Your task to perform on an android device: open app "Reddit" Image 0: 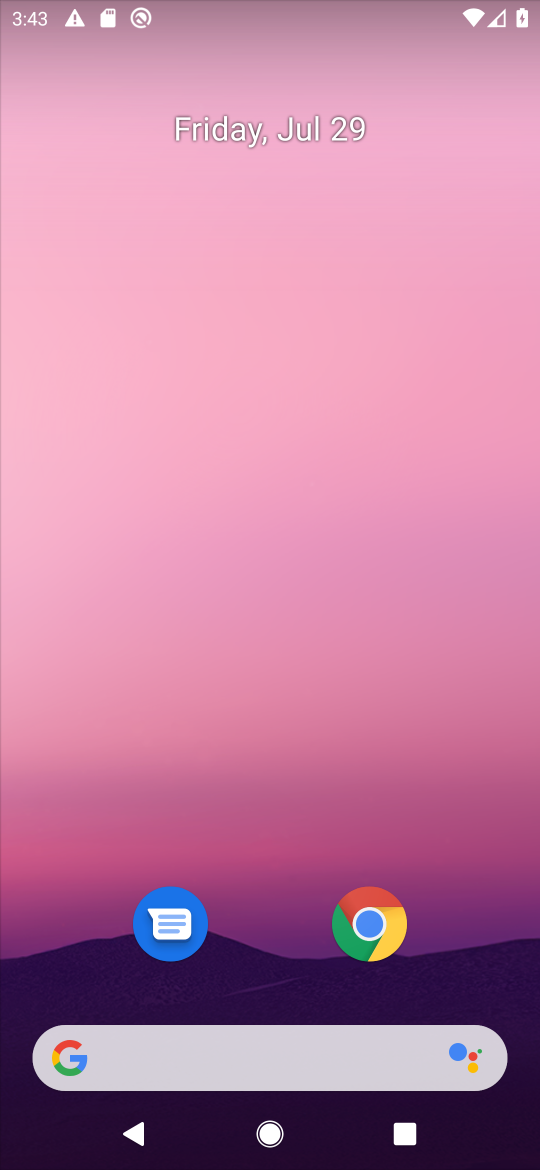
Step 0: drag from (338, 897) to (234, 127)
Your task to perform on an android device: open app "Reddit" Image 1: 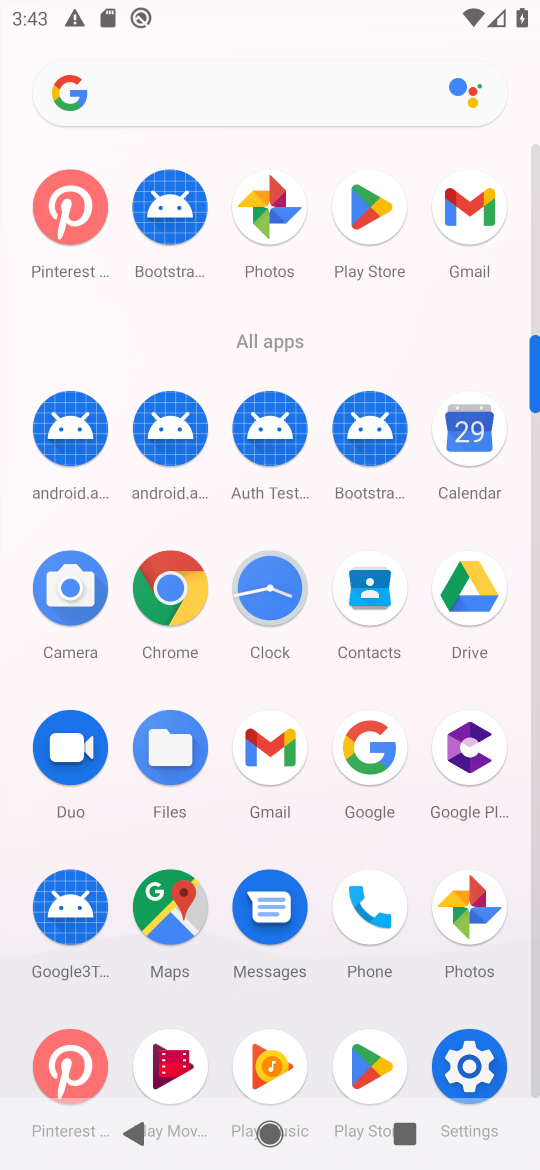
Step 1: drag from (376, 910) to (286, 307)
Your task to perform on an android device: open app "Reddit" Image 2: 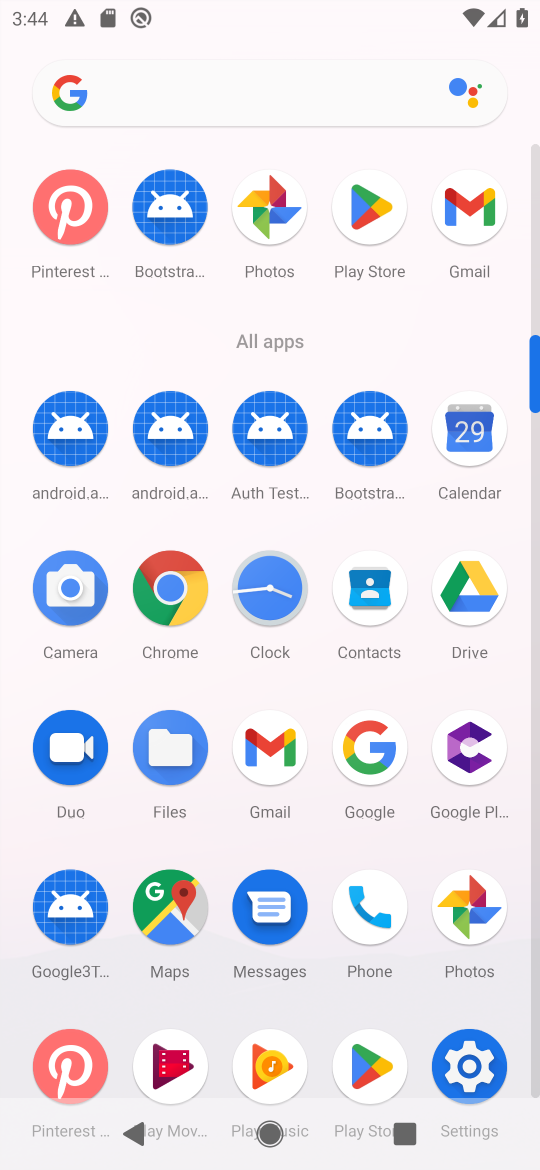
Step 2: click (360, 217)
Your task to perform on an android device: open app "Reddit" Image 3: 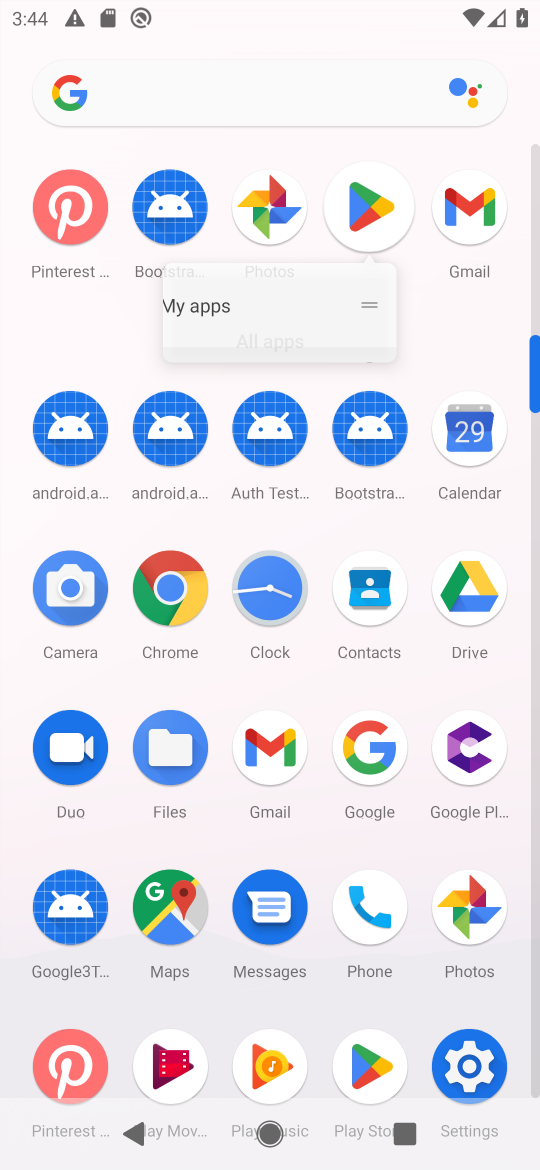
Step 3: click (360, 217)
Your task to perform on an android device: open app "Reddit" Image 4: 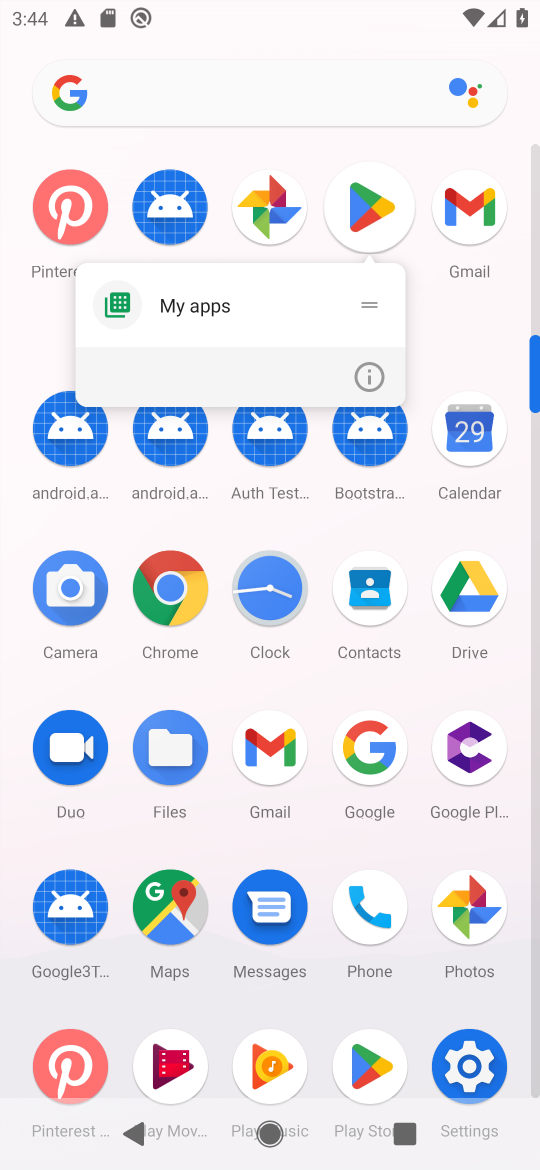
Step 4: click (381, 201)
Your task to perform on an android device: open app "Reddit" Image 5: 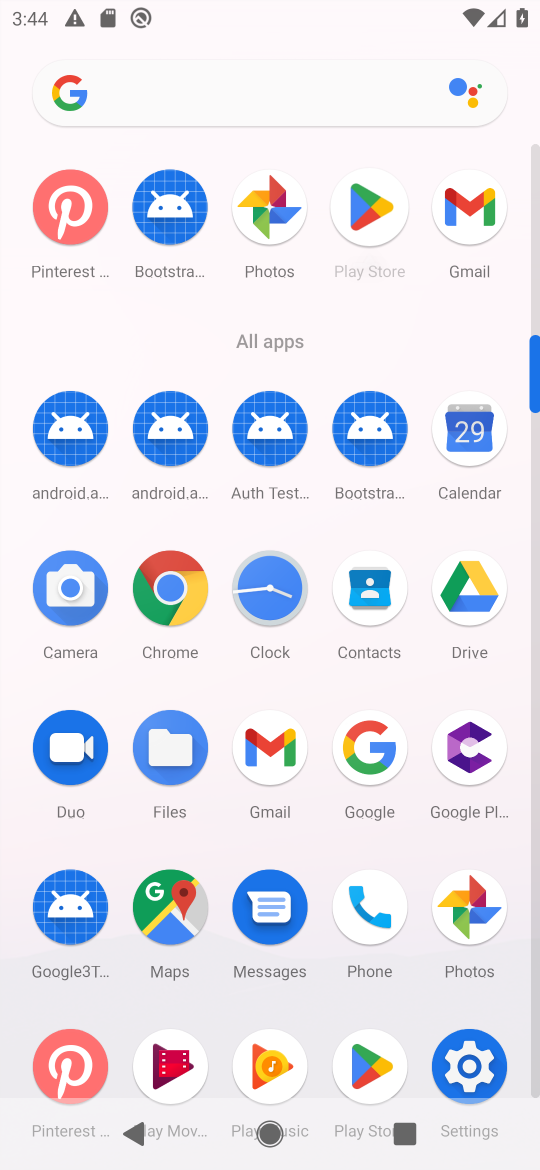
Step 5: click (395, 202)
Your task to perform on an android device: open app "Reddit" Image 6: 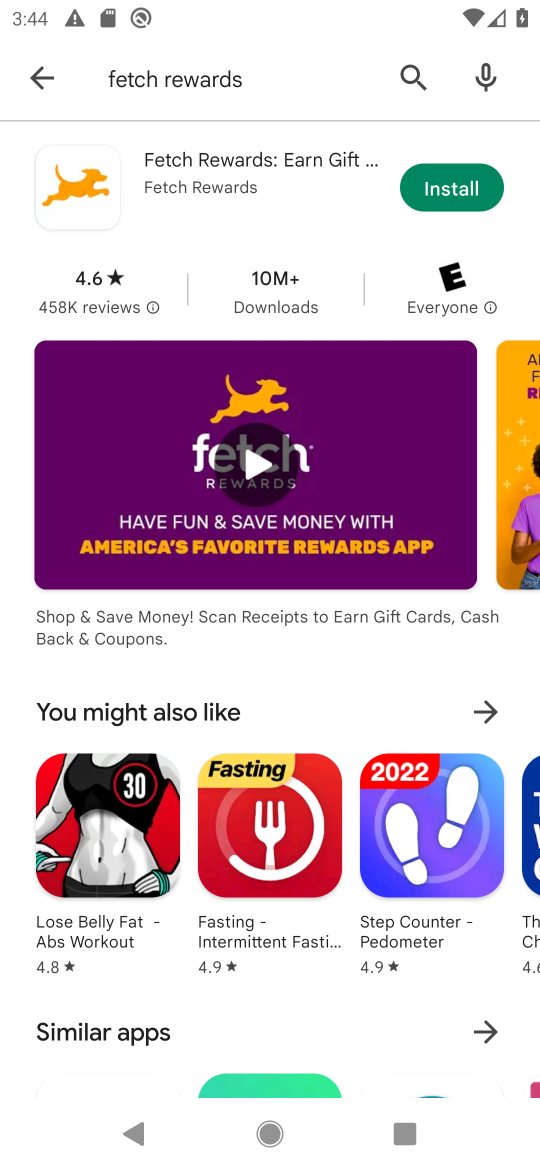
Step 6: click (1, 64)
Your task to perform on an android device: open app "Reddit" Image 7: 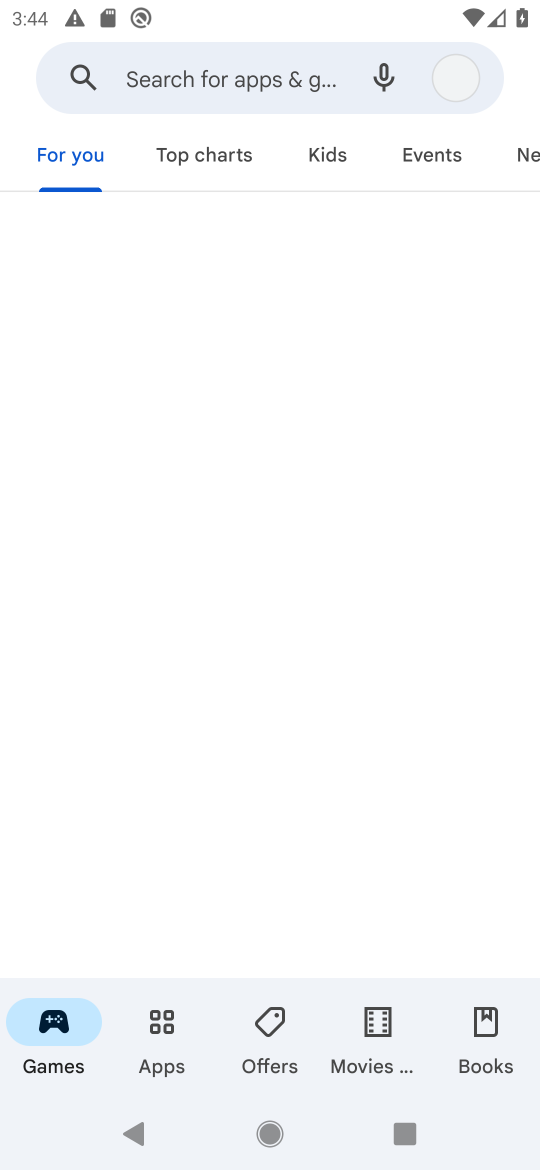
Step 7: click (31, 64)
Your task to perform on an android device: open app "Reddit" Image 8: 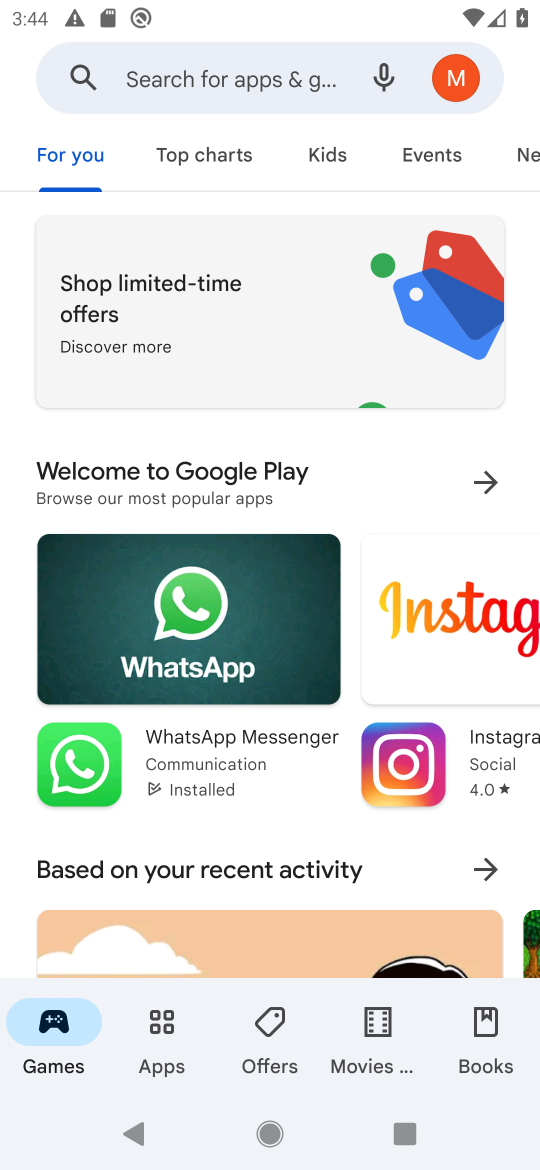
Step 8: click (142, 63)
Your task to perform on an android device: open app "Reddit" Image 9: 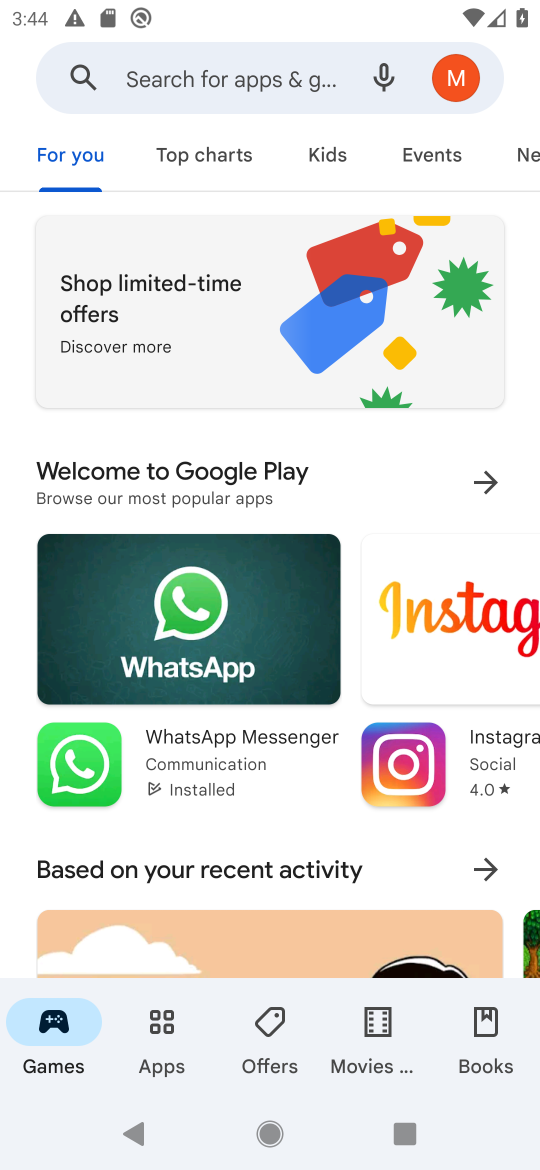
Step 9: click (167, 80)
Your task to perform on an android device: open app "Reddit" Image 10: 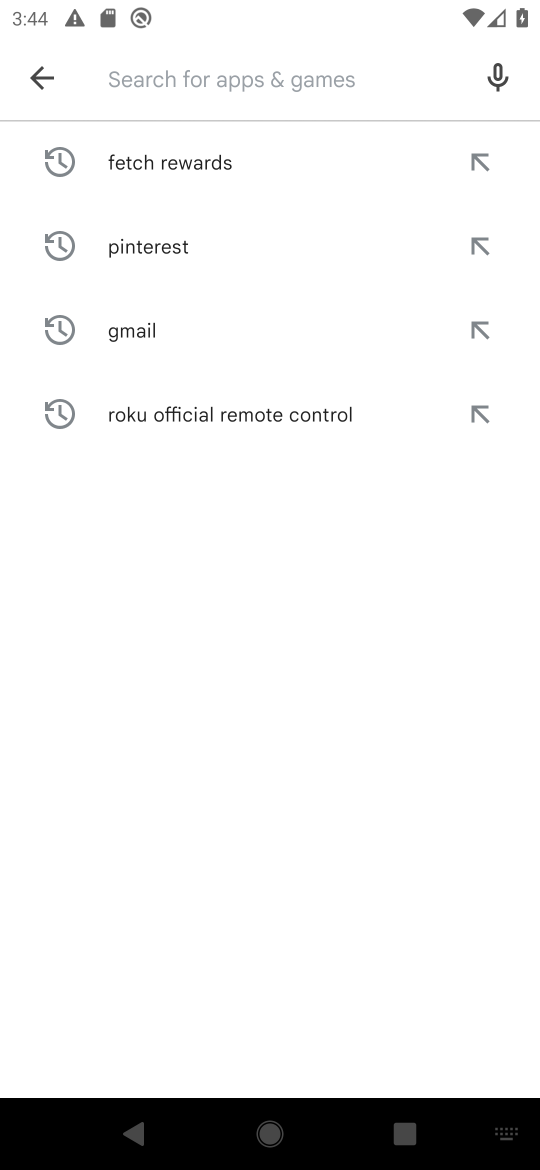
Step 10: click (190, 83)
Your task to perform on an android device: open app "Reddit" Image 11: 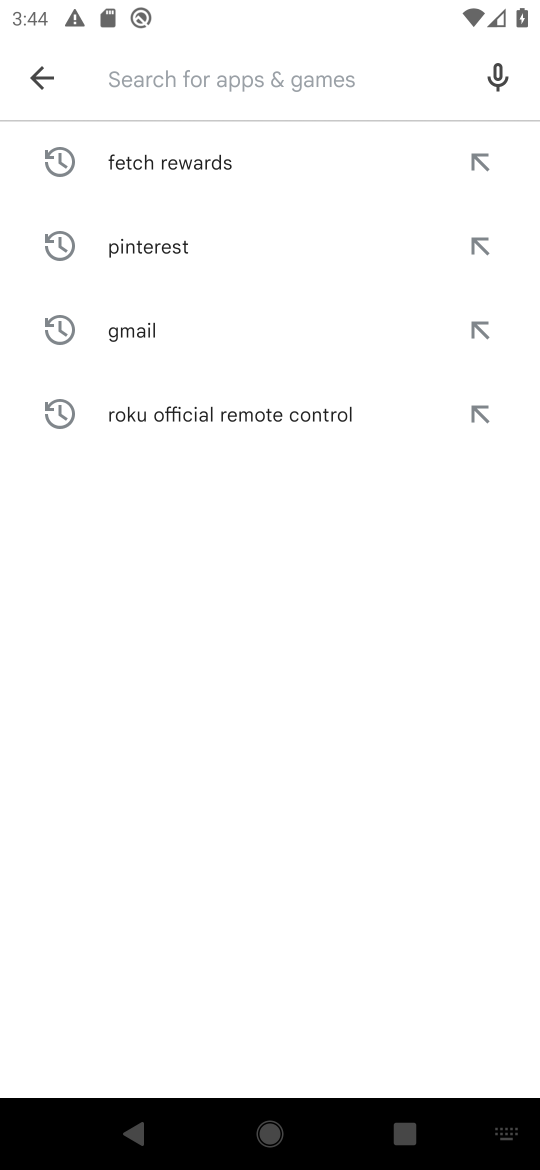
Step 11: type "Reddit"
Your task to perform on an android device: open app "Reddit" Image 12: 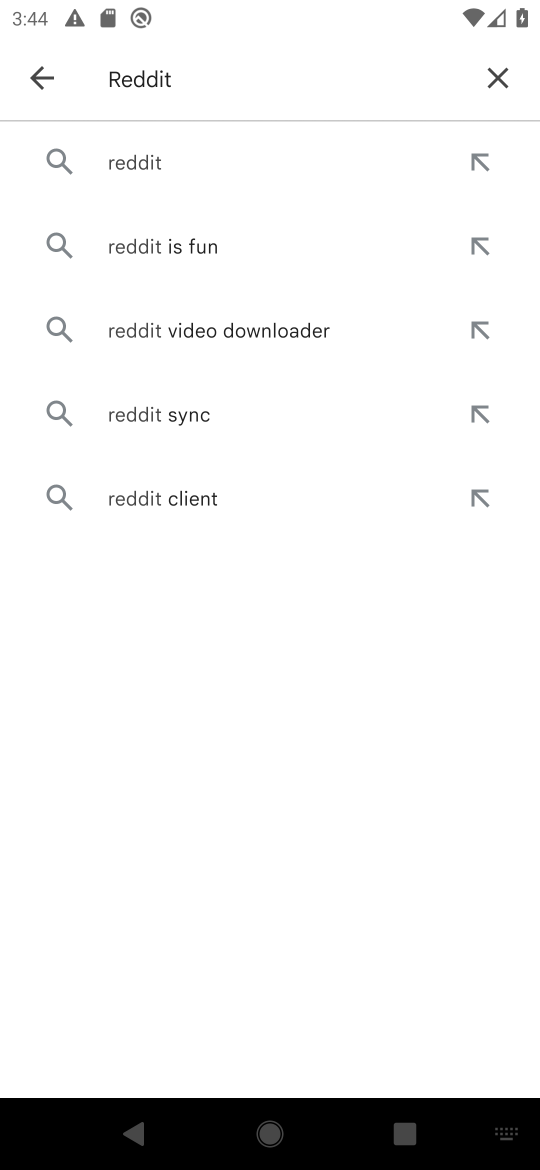
Step 12: click (158, 169)
Your task to perform on an android device: open app "Reddit" Image 13: 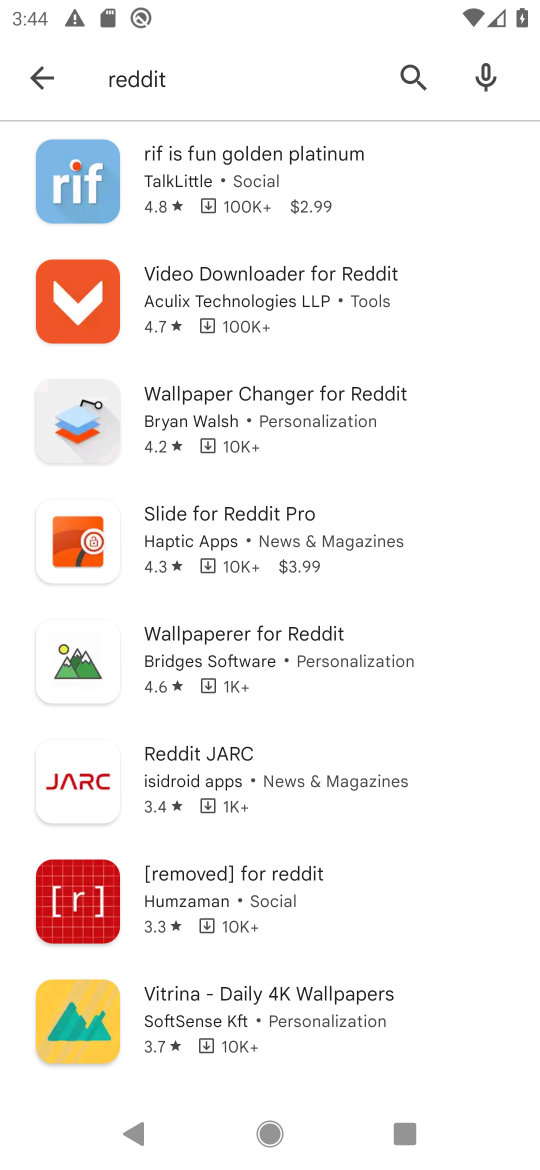
Step 13: drag from (255, 729) to (196, 280)
Your task to perform on an android device: open app "Reddit" Image 14: 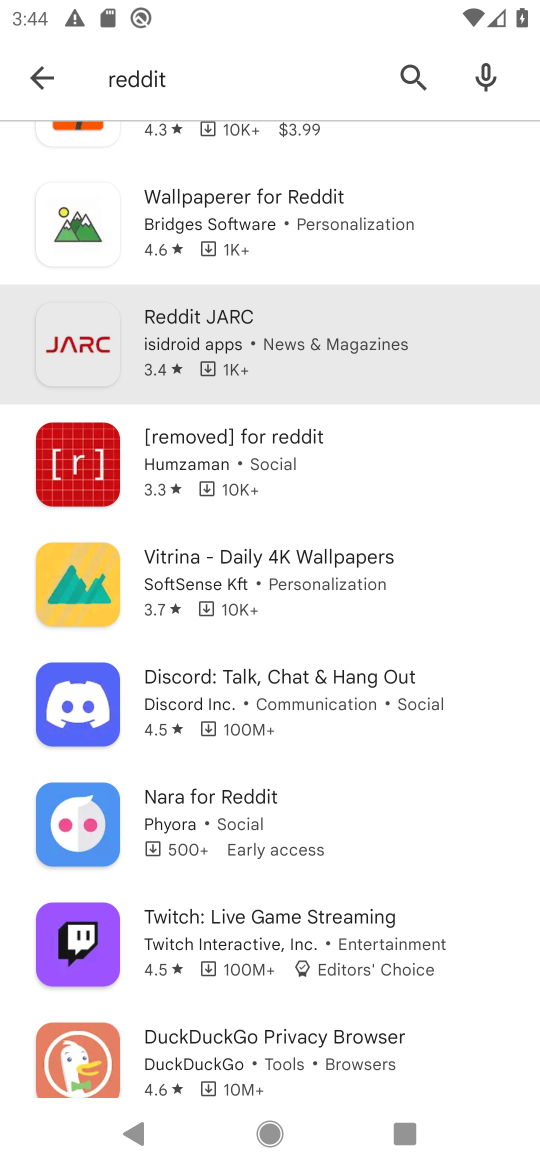
Step 14: click (212, 289)
Your task to perform on an android device: open app "Reddit" Image 15: 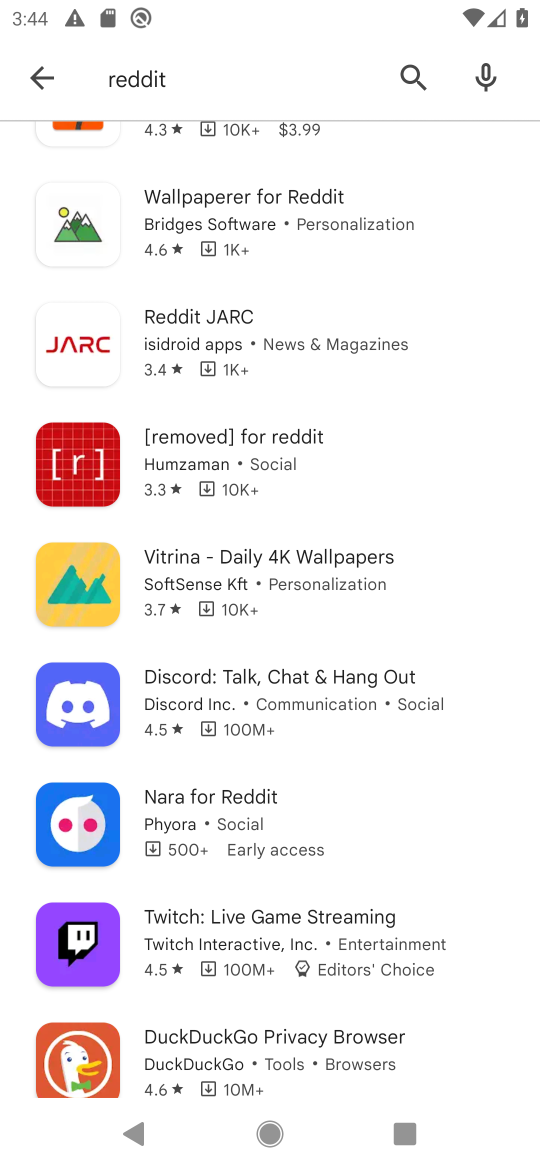
Step 15: drag from (193, 755) to (189, 416)
Your task to perform on an android device: open app "Reddit" Image 16: 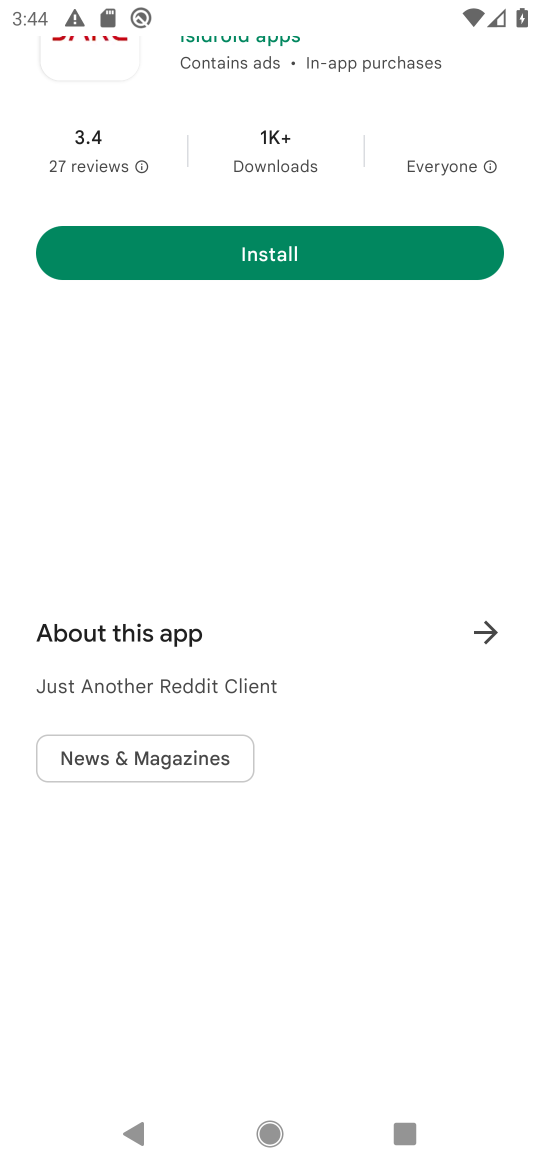
Step 16: drag from (211, 847) to (219, 985)
Your task to perform on an android device: open app "Reddit" Image 17: 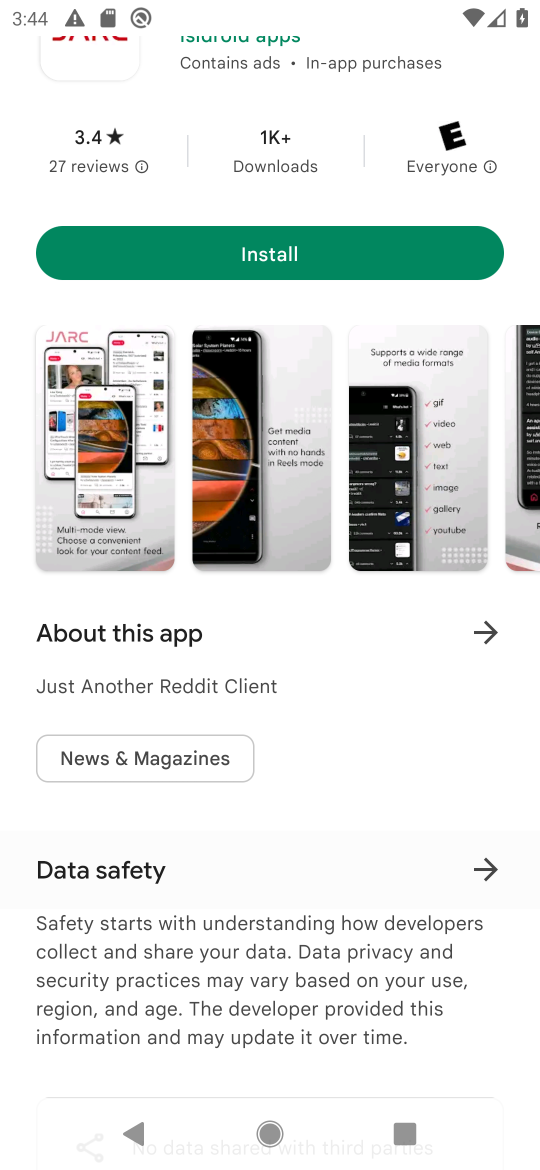
Step 17: click (256, 561)
Your task to perform on an android device: open app "Reddit" Image 18: 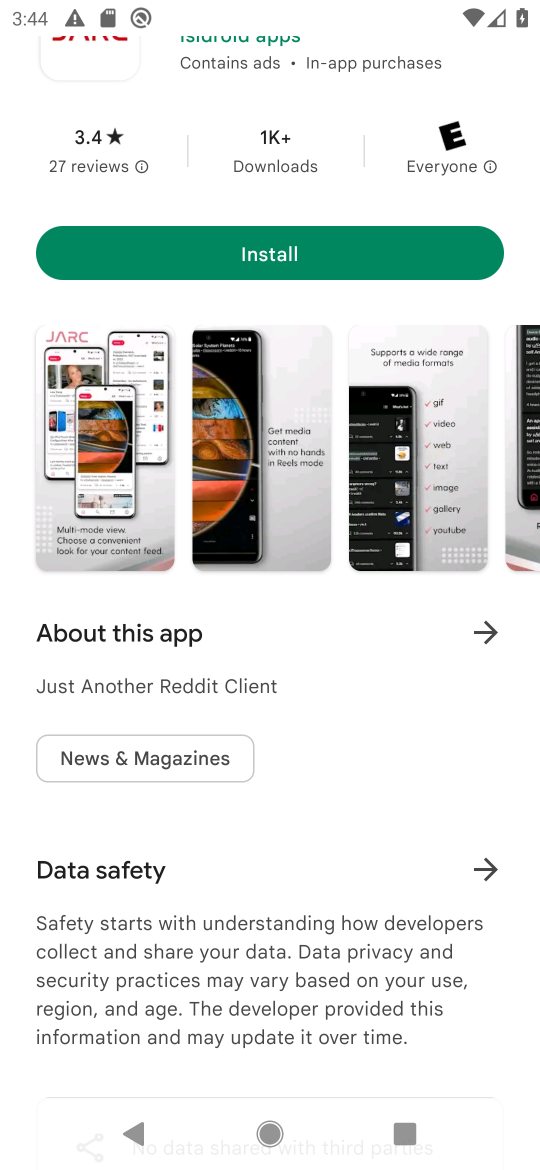
Step 18: click (27, 78)
Your task to perform on an android device: open app "Reddit" Image 19: 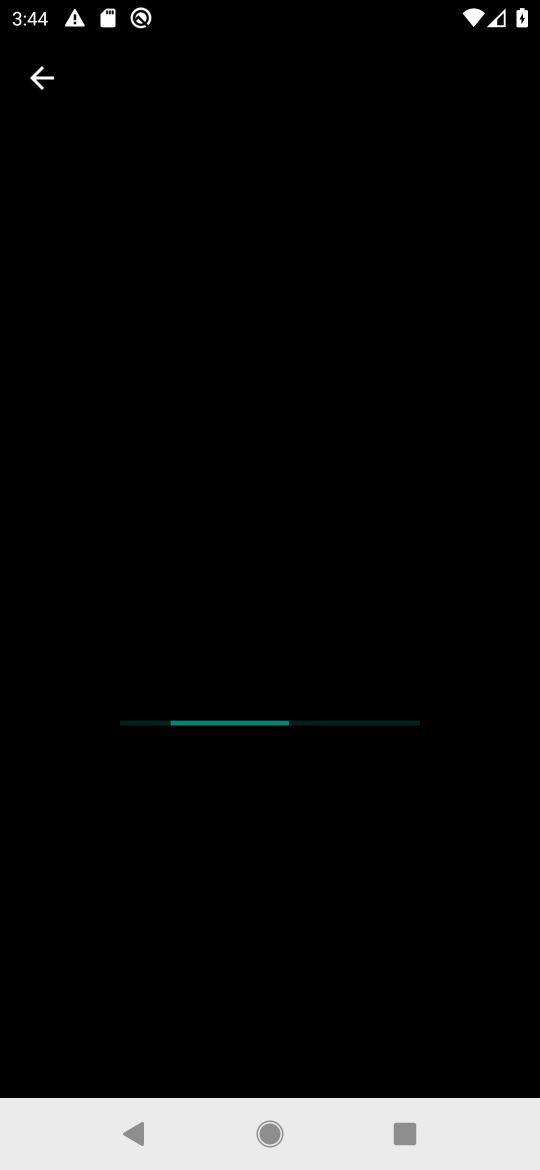
Step 19: click (27, 78)
Your task to perform on an android device: open app "Reddit" Image 20: 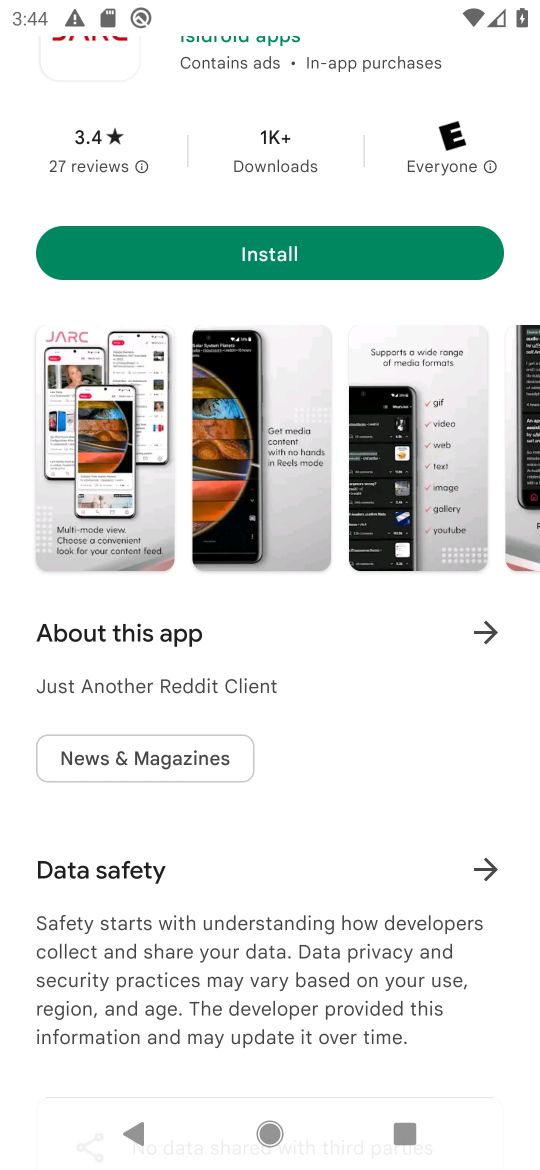
Step 20: task complete